Your task to perform on an android device: open a bookmark in the chrome app Image 0: 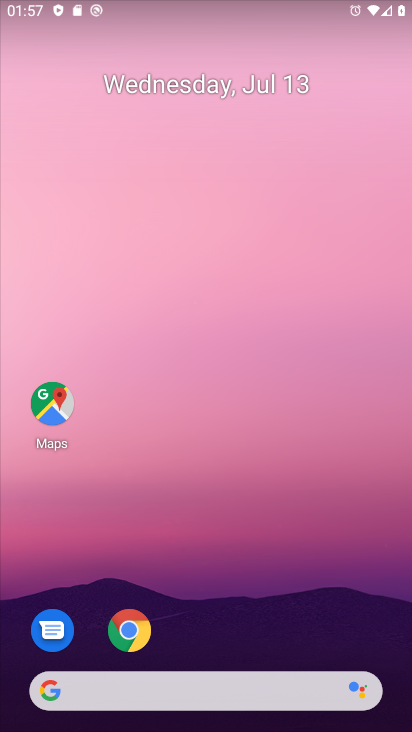
Step 0: click (122, 627)
Your task to perform on an android device: open a bookmark in the chrome app Image 1: 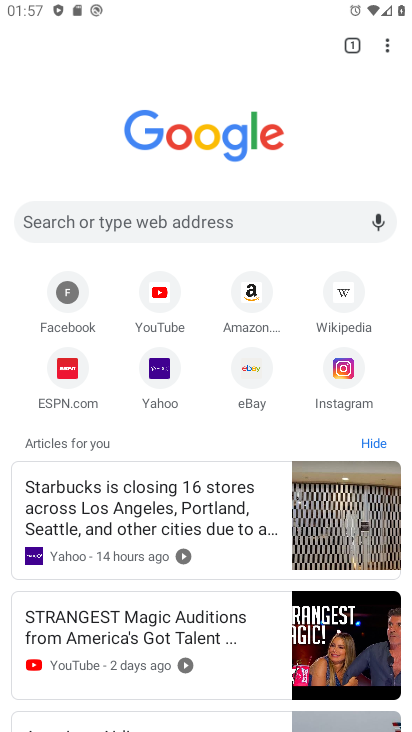
Step 1: click (386, 42)
Your task to perform on an android device: open a bookmark in the chrome app Image 2: 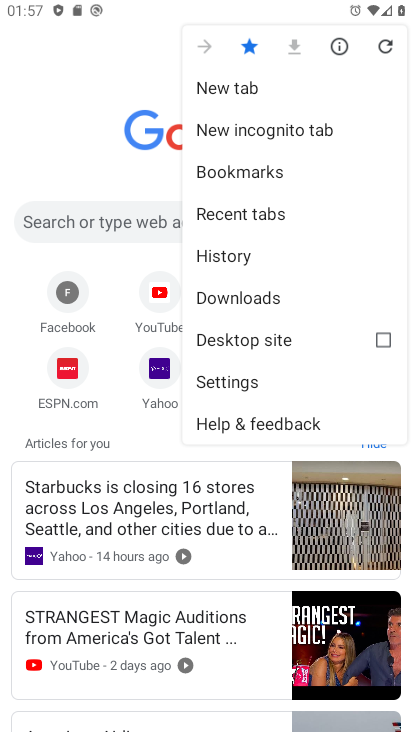
Step 2: click (279, 160)
Your task to perform on an android device: open a bookmark in the chrome app Image 3: 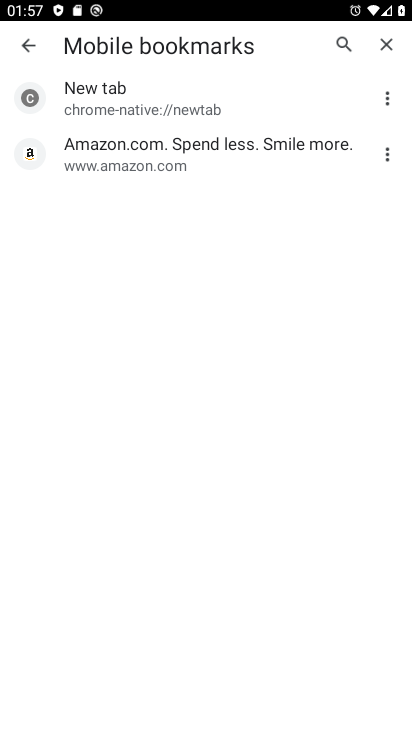
Step 3: click (389, 155)
Your task to perform on an android device: open a bookmark in the chrome app Image 4: 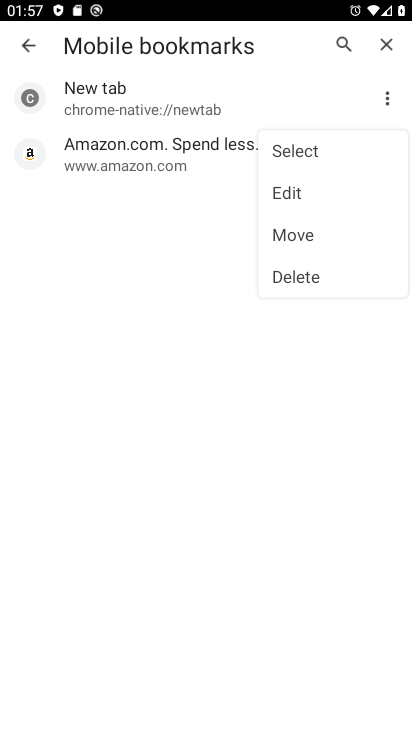
Step 4: click (197, 165)
Your task to perform on an android device: open a bookmark in the chrome app Image 5: 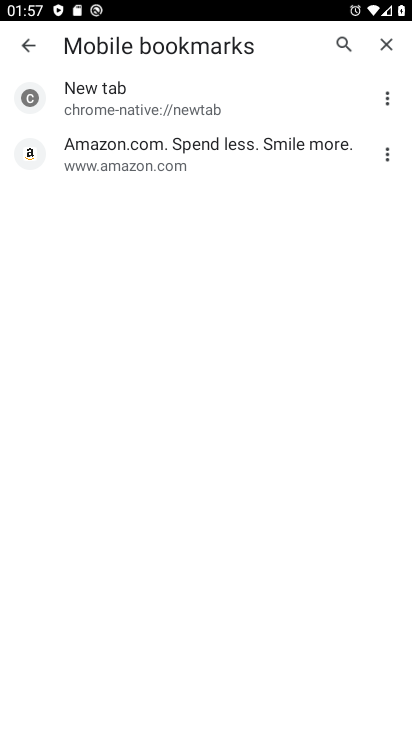
Step 5: click (175, 141)
Your task to perform on an android device: open a bookmark in the chrome app Image 6: 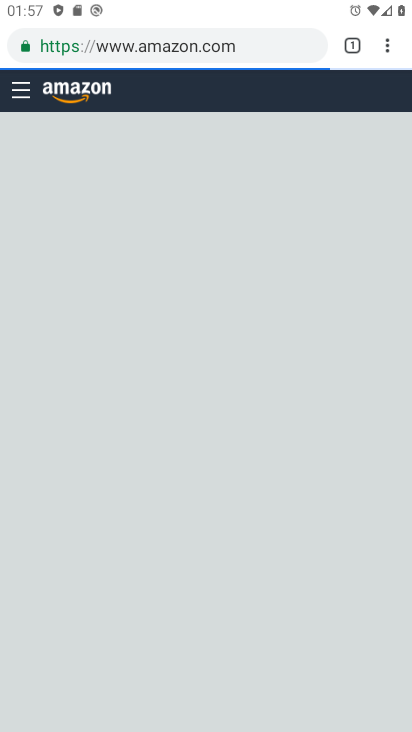
Step 6: task complete